Your task to perform on an android device: Go to Yahoo.com Image 0: 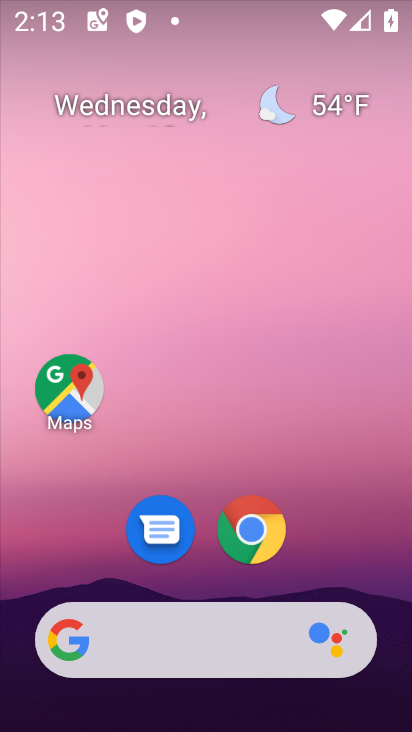
Step 0: click (259, 530)
Your task to perform on an android device: Go to Yahoo.com Image 1: 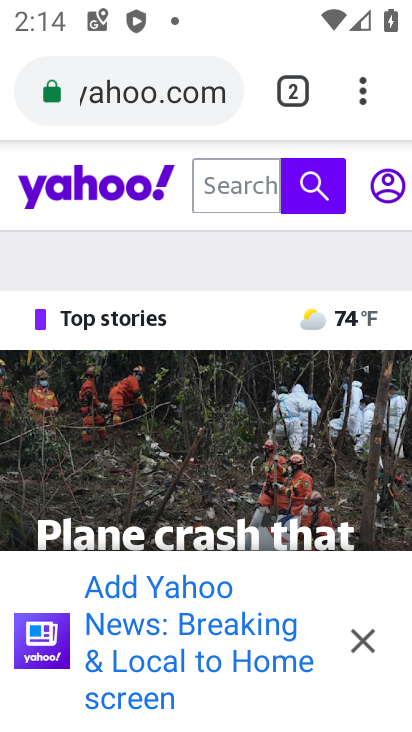
Step 1: task complete